Your task to perform on an android device: What's the time? Image 0: 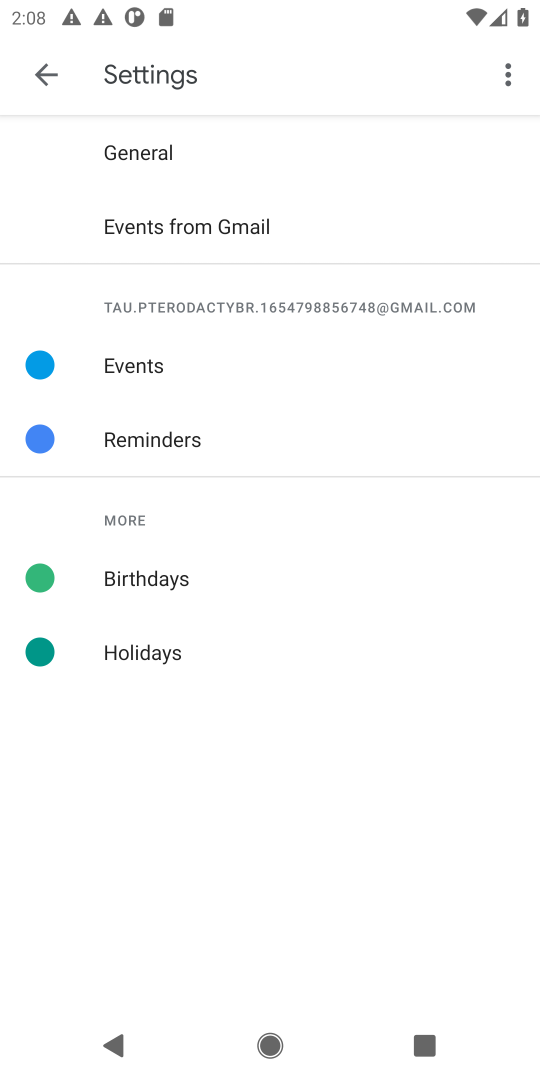
Step 0: press home button
Your task to perform on an android device: What's the time? Image 1: 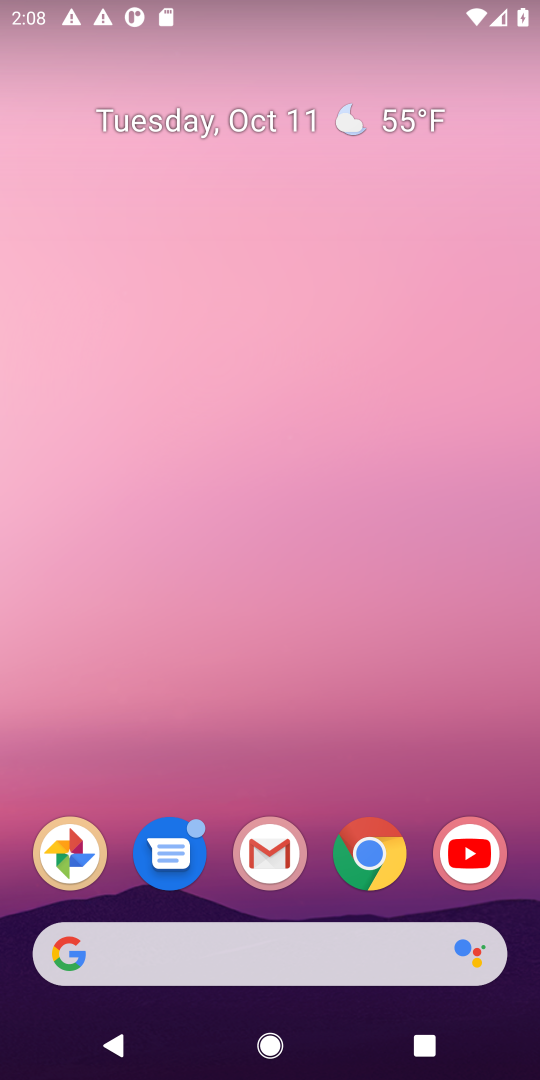
Step 1: drag from (266, 799) to (264, 214)
Your task to perform on an android device: What's the time? Image 2: 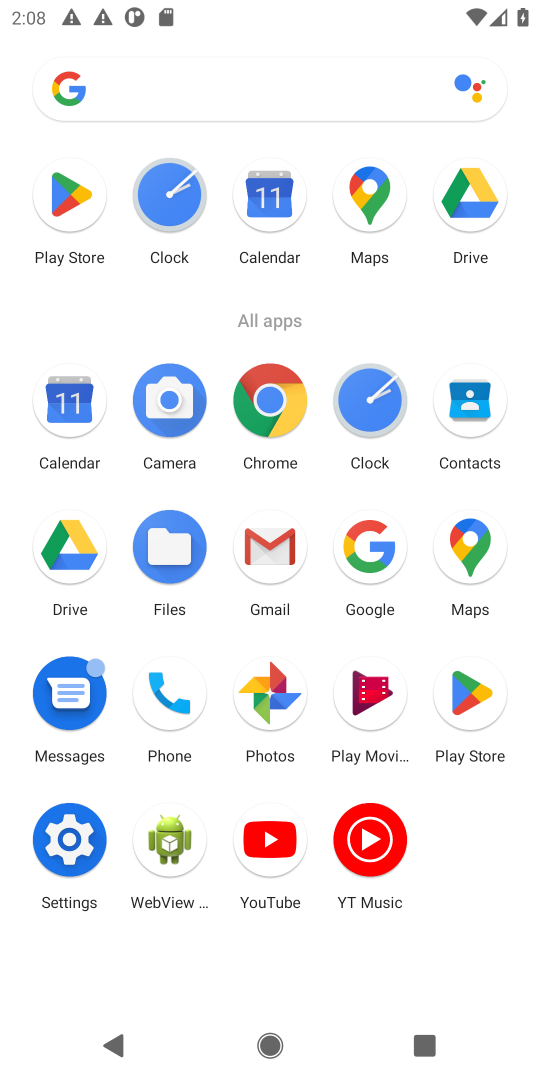
Step 2: click (371, 406)
Your task to perform on an android device: What's the time? Image 3: 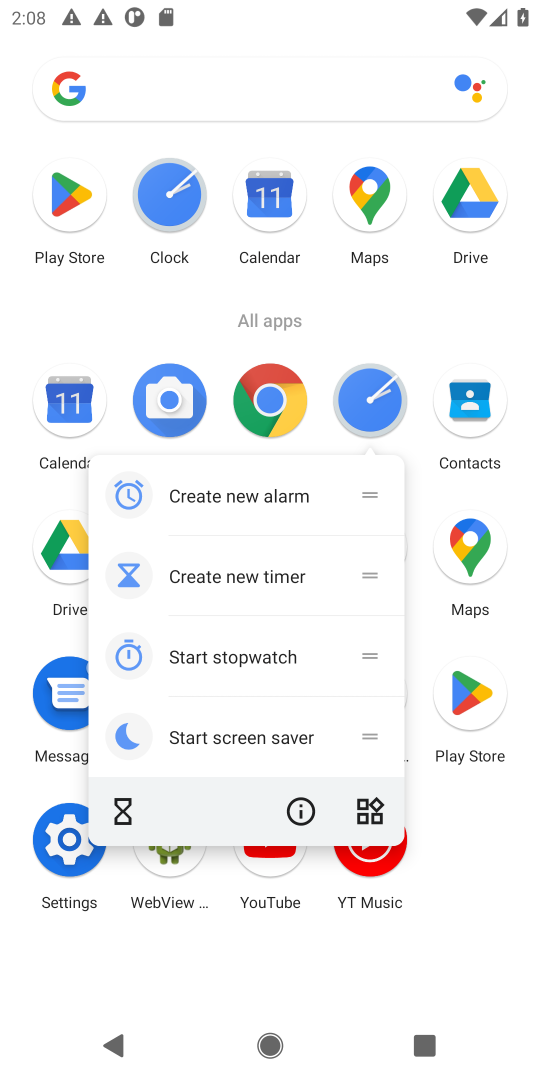
Step 3: click (369, 409)
Your task to perform on an android device: What's the time? Image 4: 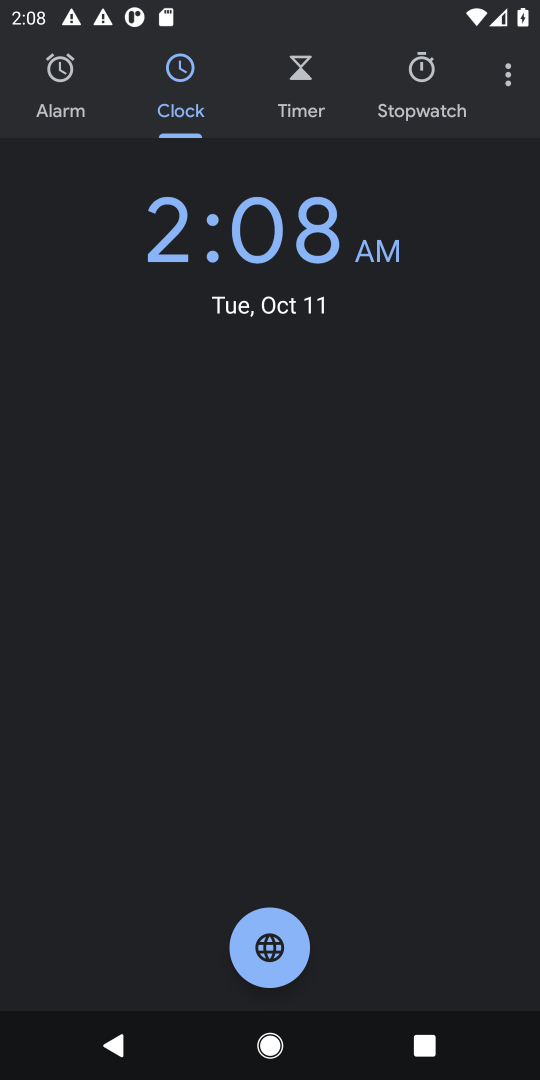
Step 4: task complete